Your task to perform on an android device: change timer sound Image 0: 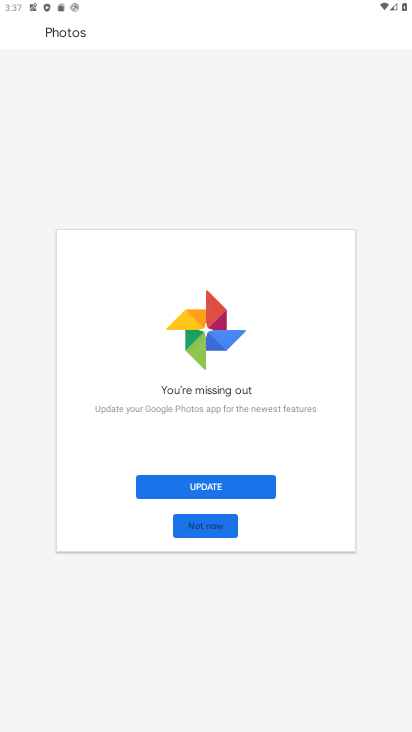
Step 0: press home button
Your task to perform on an android device: change timer sound Image 1: 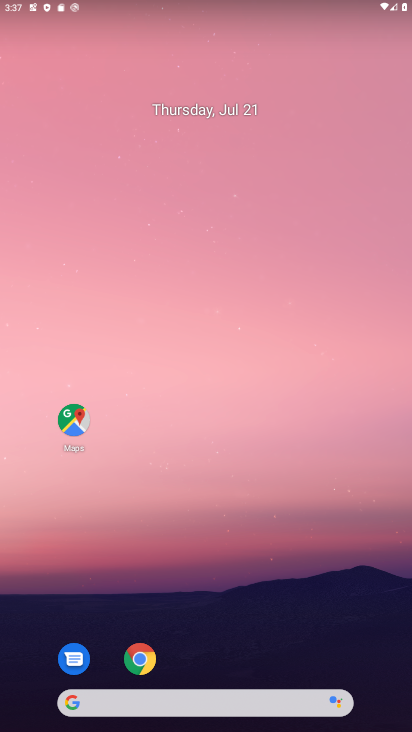
Step 1: drag from (238, 582) to (190, 53)
Your task to perform on an android device: change timer sound Image 2: 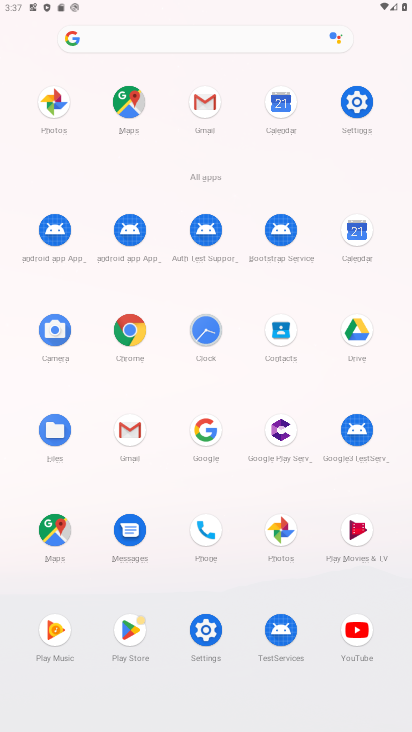
Step 2: click (202, 334)
Your task to perform on an android device: change timer sound Image 3: 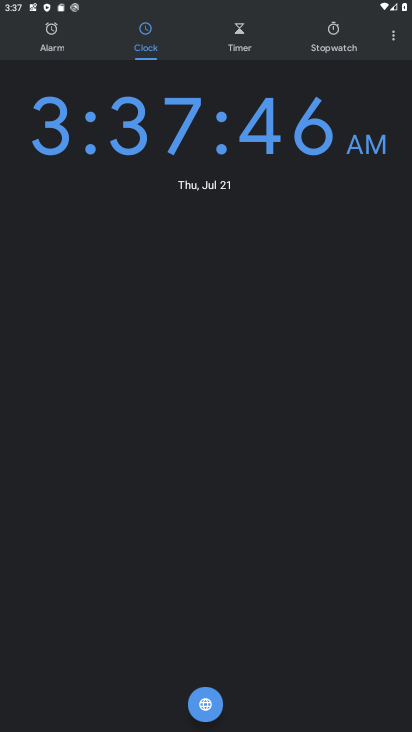
Step 3: click (393, 33)
Your task to perform on an android device: change timer sound Image 4: 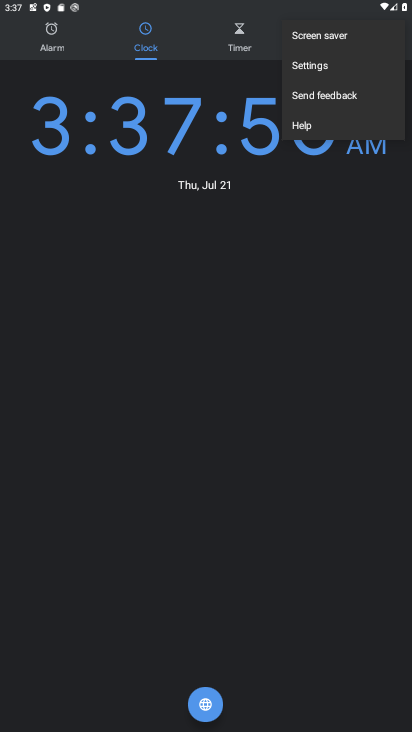
Step 4: click (326, 61)
Your task to perform on an android device: change timer sound Image 5: 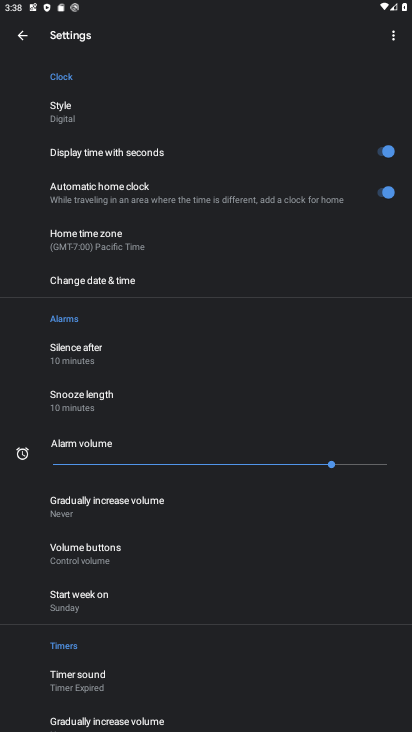
Step 5: click (90, 674)
Your task to perform on an android device: change timer sound Image 6: 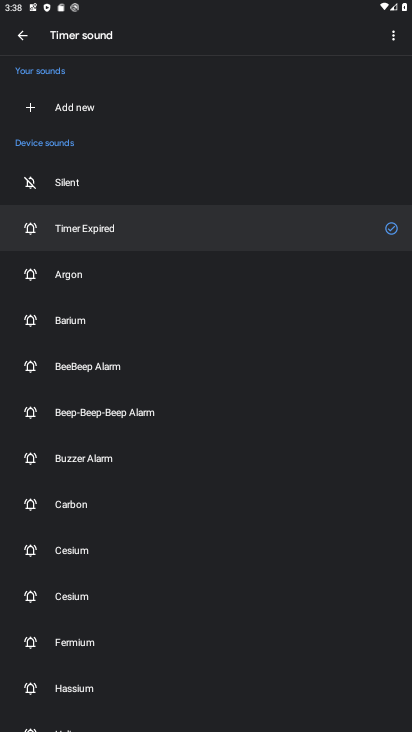
Step 6: click (72, 321)
Your task to perform on an android device: change timer sound Image 7: 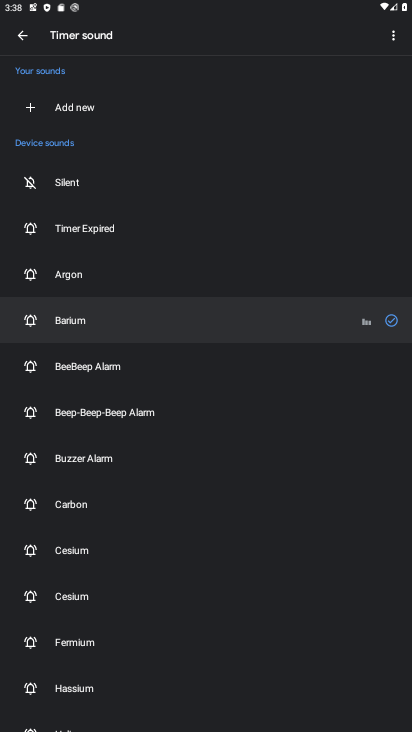
Step 7: task complete